Your task to perform on an android device: Open the calendar app, open the side menu, and click the "Day" option Image 0: 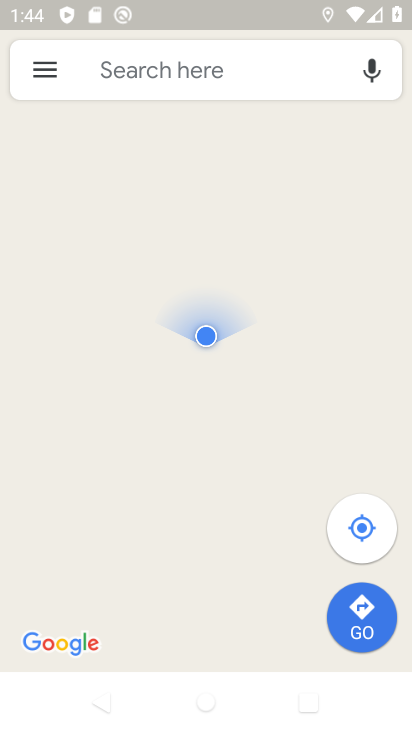
Step 0: press home button
Your task to perform on an android device: Open the calendar app, open the side menu, and click the "Day" option Image 1: 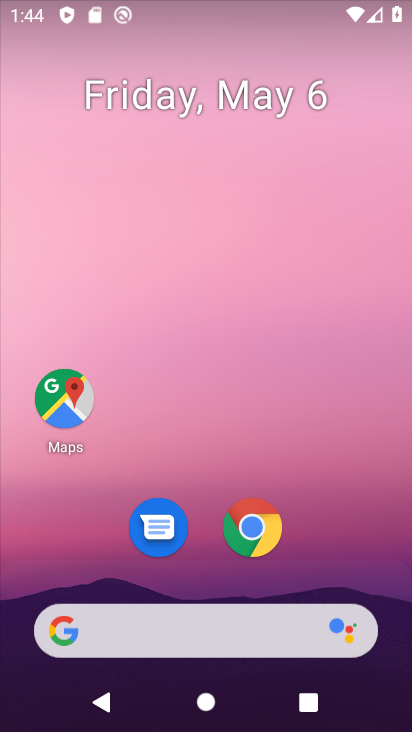
Step 1: drag from (165, 453) to (146, 30)
Your task to perform on an android device: Open the calendar app, open the side menu, and click the "Day" option Image 2: 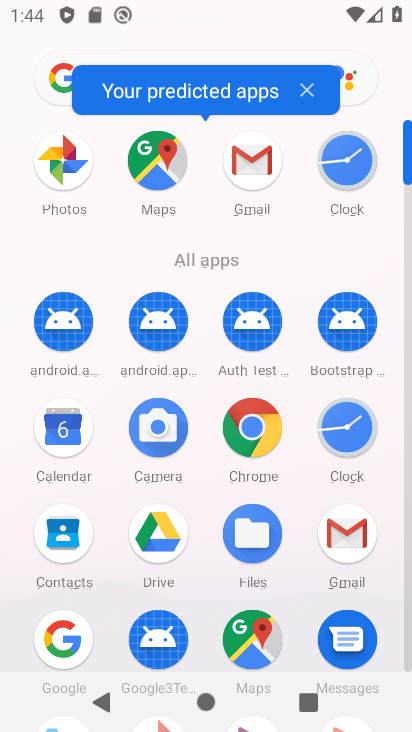
Step 2: drag from (303, 258) to (301, 21)
Your task to perform on an android device: Open the calendar app, open the side menu, and click the "Day" option Image 3: 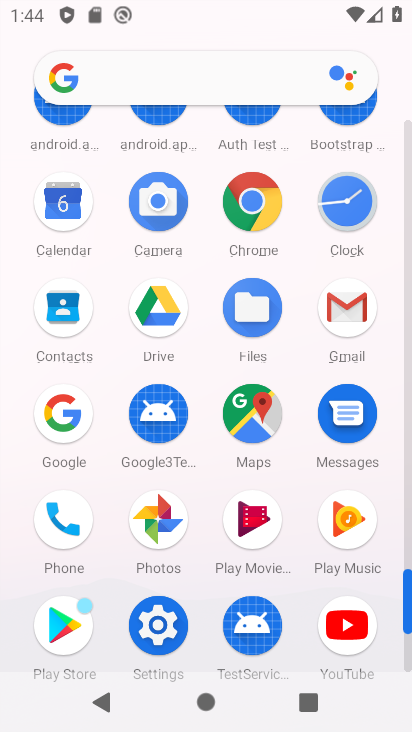
Step 3: click (68, 203)
Your task to perform on an android device: Open the calendar app, open the side menu, and click the "Day" option Image 4: 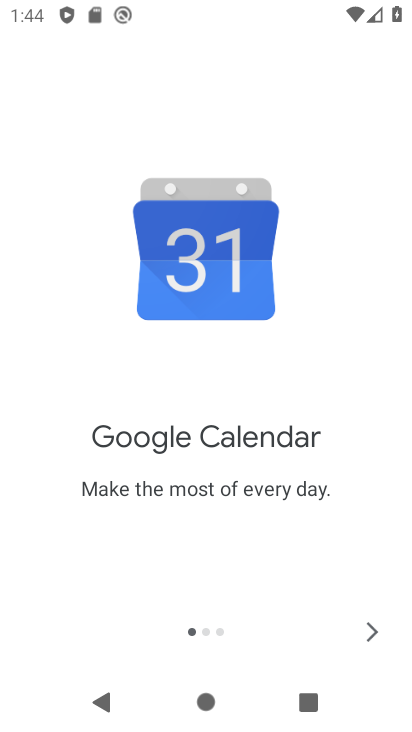
Step 4: click (373, 629)
Your task to perform on an android device: Open the calendar app, open the side menu, and click the "Day" option Image 5: 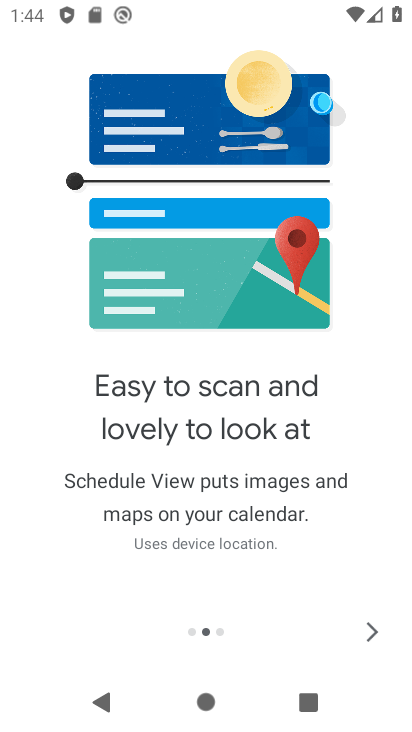
Step 5: click (373, 629)
Your task to perform on an android device: Open the calendar app, open the side menu, and click the "Day" option Image 6: 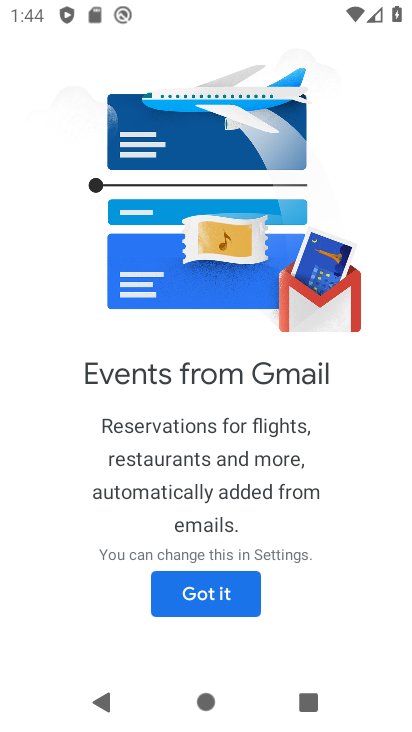
Step 6: click (373, 629)
Your task to perform on an android device: Open the calendar app, open the side menu, and click the "Day" option Image 7: 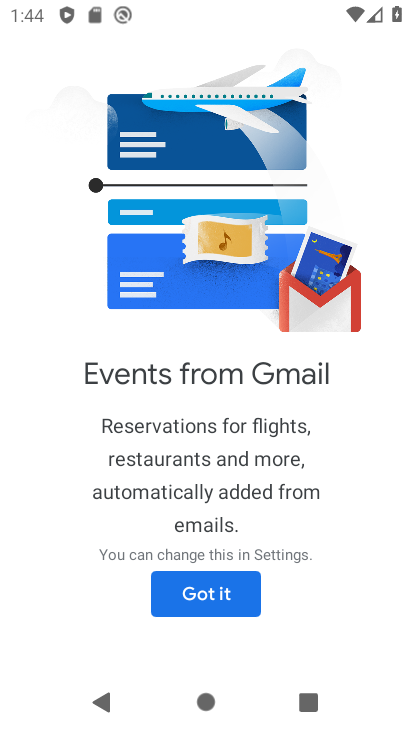
Step 7: click (208, 606)
Your task to perform on an android device: Open the calendar app, open the side menu, and click the "Day" option Image 8: 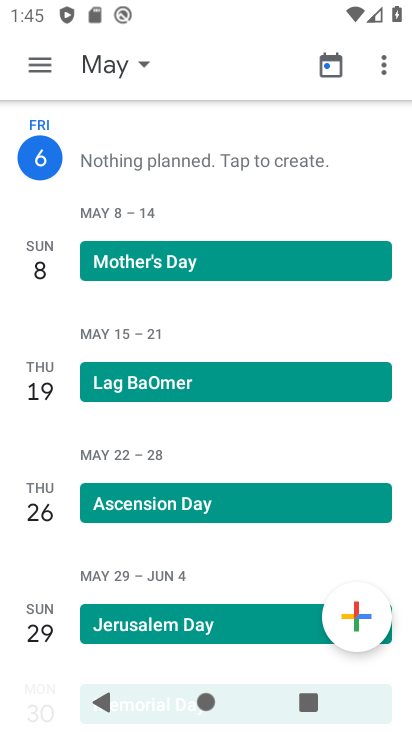
Step 8: click (30, 67)
Your task to perform on an android device: Open the calendar app, open the side menu, and click the "Day" option Image 9: 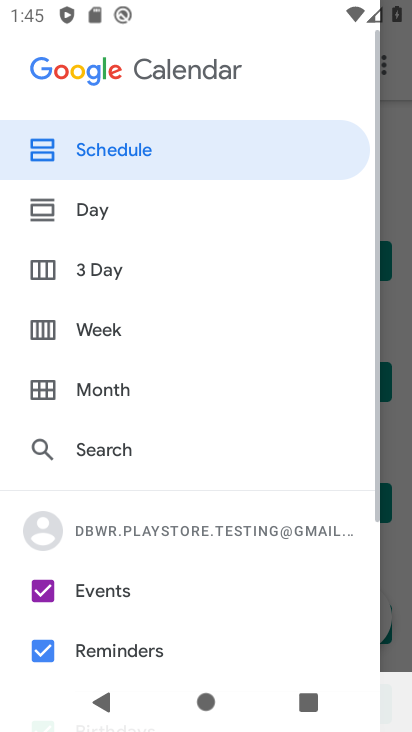
Step 9: click (85, 205)
Your task to perform on an android device: Open the calendar app, open the side menu, and click the "Day" option Image 10: 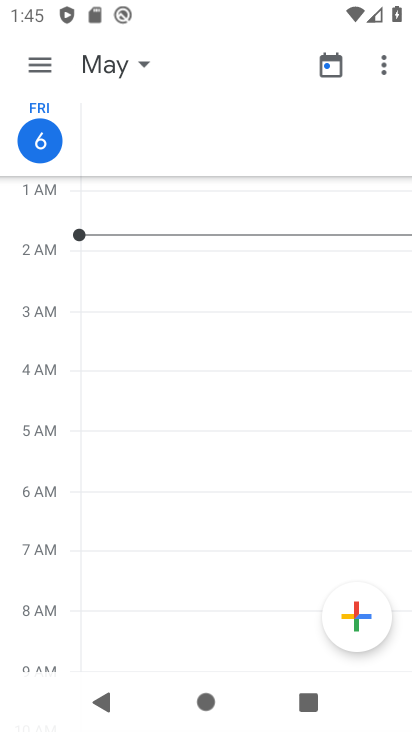
Step 10: task complete